Your task to perform on an android device: see creations saved in the google photos Image 0: 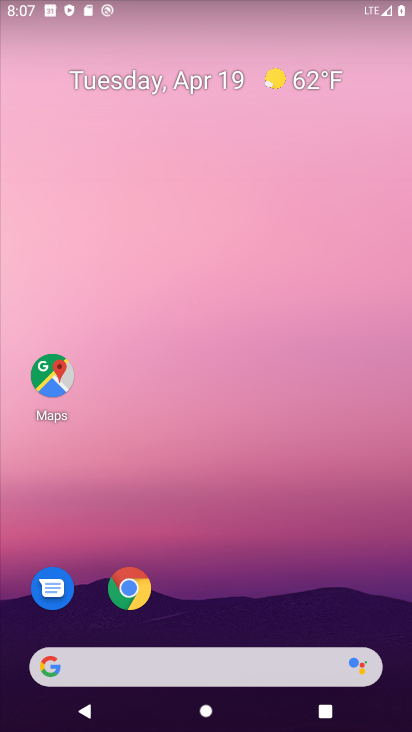
Step 0: drag from (208, 564) to (157, 215)
Your task to perform on an android device: see creations saved in the google photos Image 1: 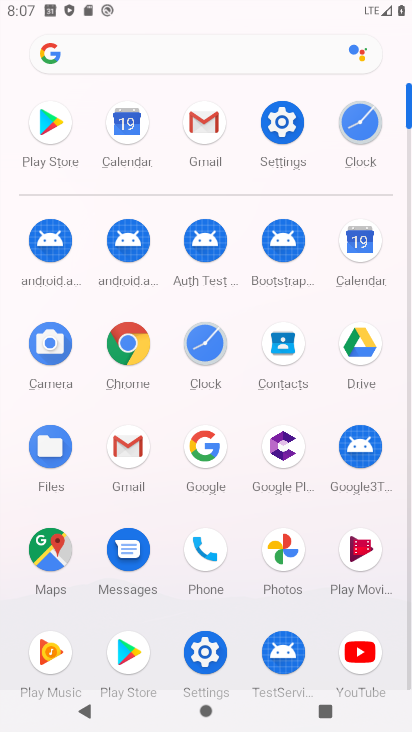
Step 1: click (282, 552)
Your task to perform on an android device: see creations saved in the google photos Image 2: 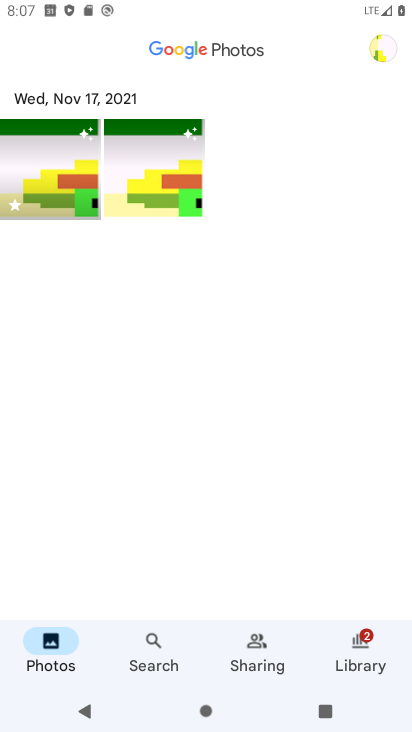
Step 2: click (144, 80)
Your task to perform on an android device: see creations saved in the google photos Image 3: 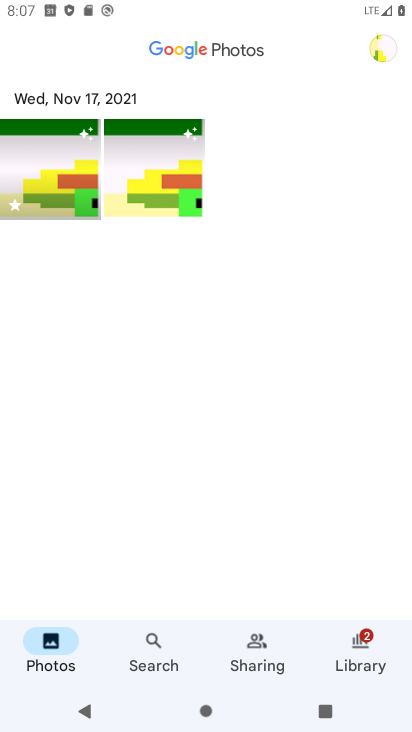
Step 3: click (152, 636)
Your task to perform on an android device: see creations saved in the google photos Image 4: 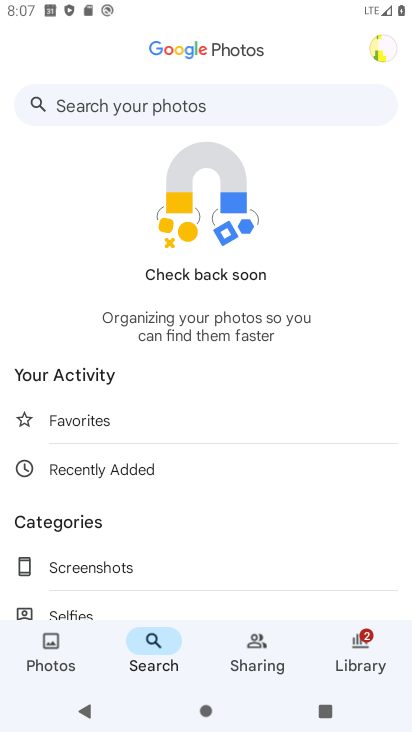
Step 4: drag from (200, 542) to (115, 157)
Your task to perform on an android device: see creations saved in the google photos Image 5: 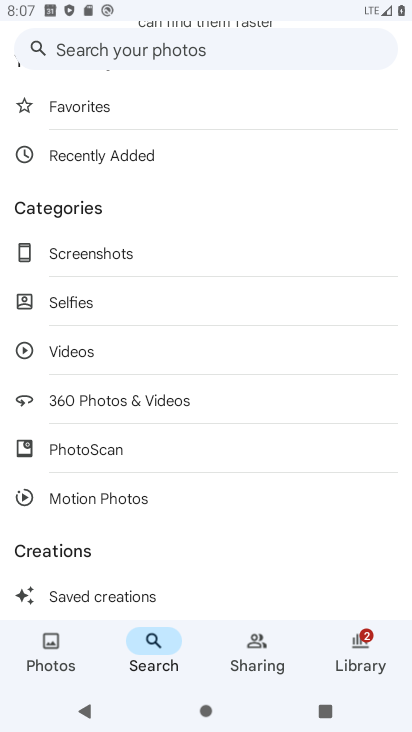
Step 5: click (83, 591)
Your task to perform on an android device: see creations saved in the google photos Image 6: 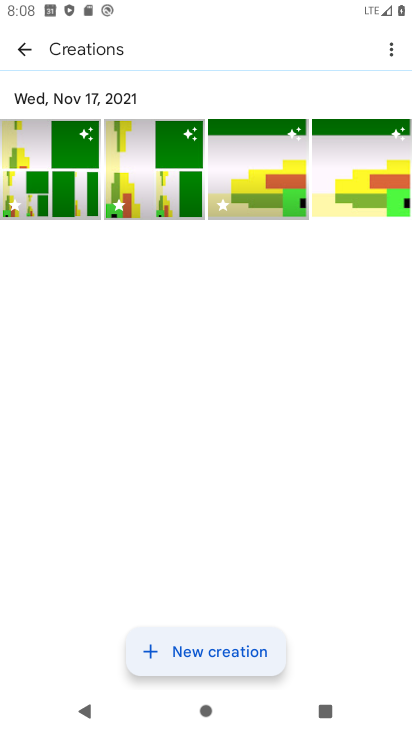
Step 6: task complete